Your task to perform on an android device: Go to Wikipedia Image 0: 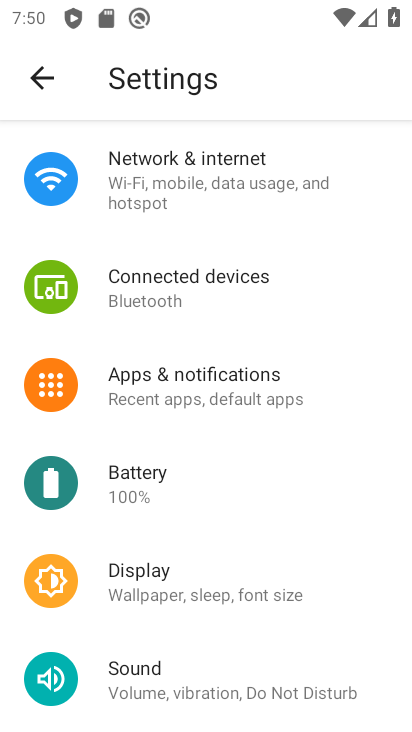
Step 0: press back button
Your task to perform on an android device: Go to Wikipedia Image 1: 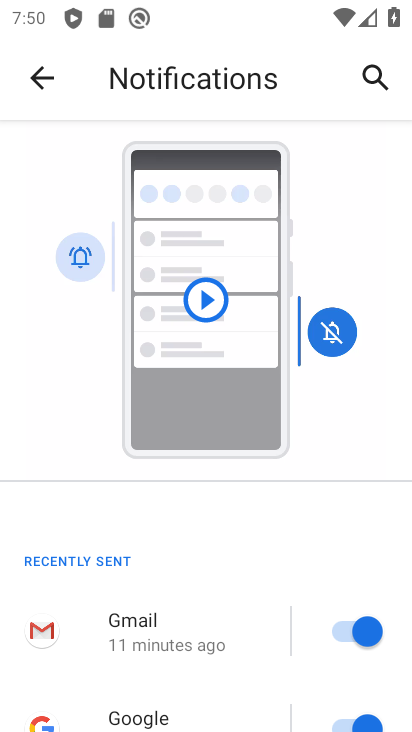
Step 1: press back button
Your task to perform on an android device: Go to Wikipedia Image 2: 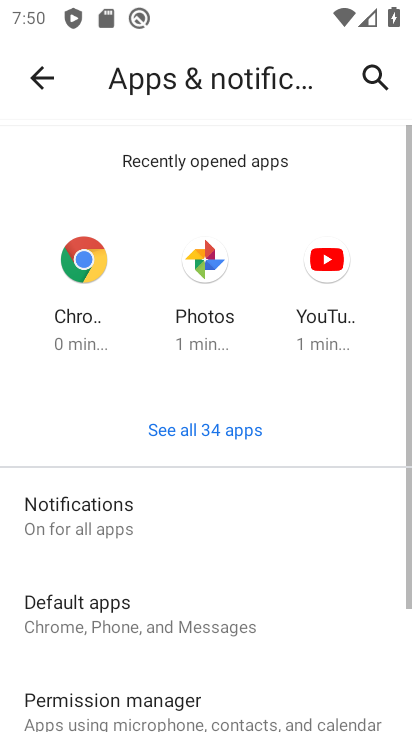
Step 2: press back button
Your task to perform on an android device: Go to Wikipedia Image 3: 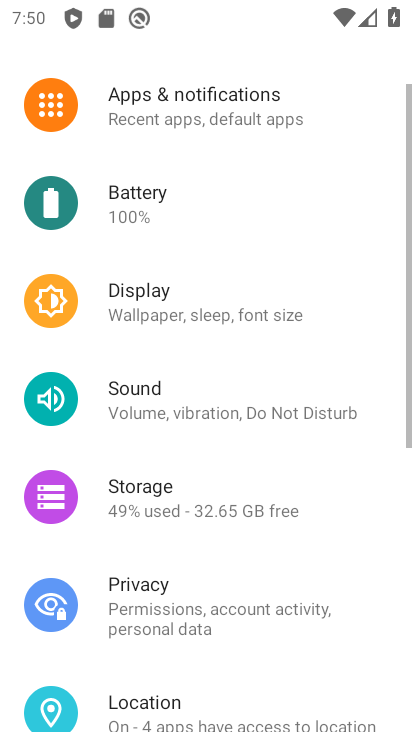
Step 3: press back button
Your task to perform on an android device: Go to Wikipedia Image 4: 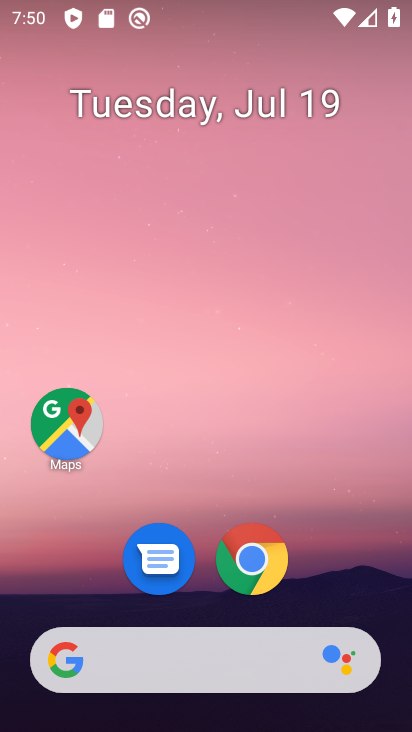
Step 4: click (266, 545)
Your task to perform on an android device: Go to Wikipedia Image 5: 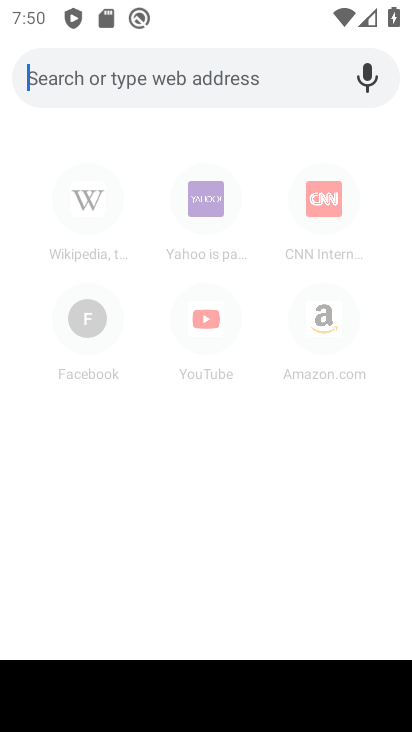
Step 5: click (85, 213)
Your task to perform on an android device: Go to Wikipedia Image 6: 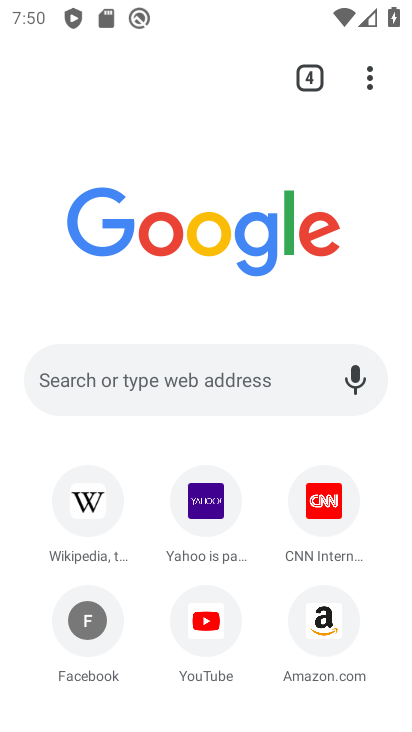
Step 6: click (98, 497)
Your task to perform on an android device: Go to Wikipedia Image 7: 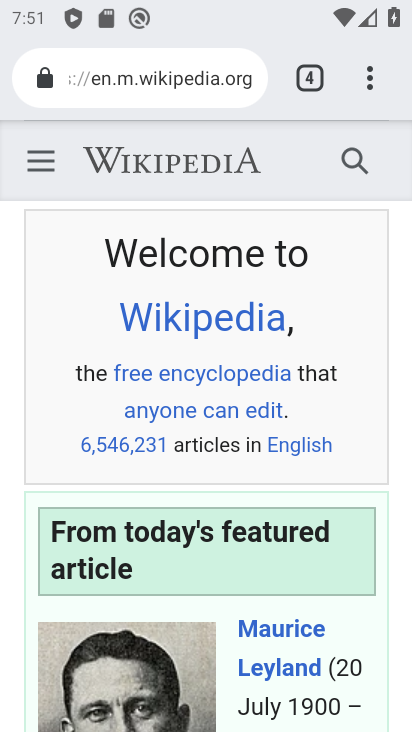
Step 7: task complete